Your task to perform on an android device: check battery use Image 0: 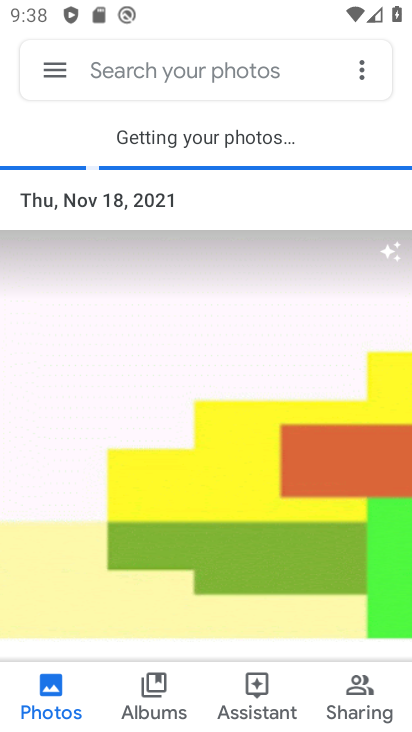
Step 0: press home button
Your task to perform on an android device: check battery use Image 1: 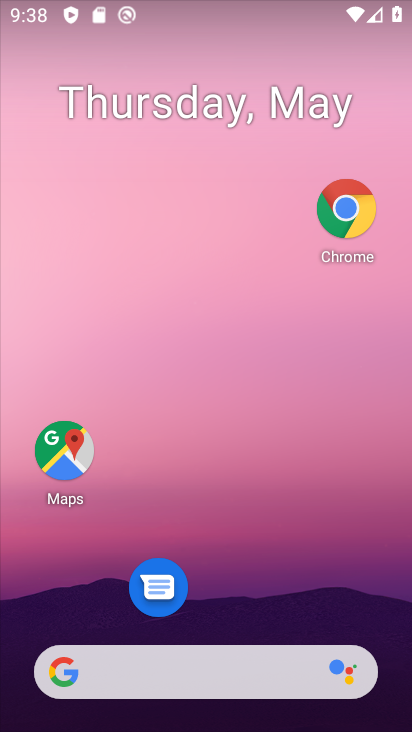
Step 1: drag from (244, 615) to (246, 1)
Your task to perform on an android device: check battery use Image 2: 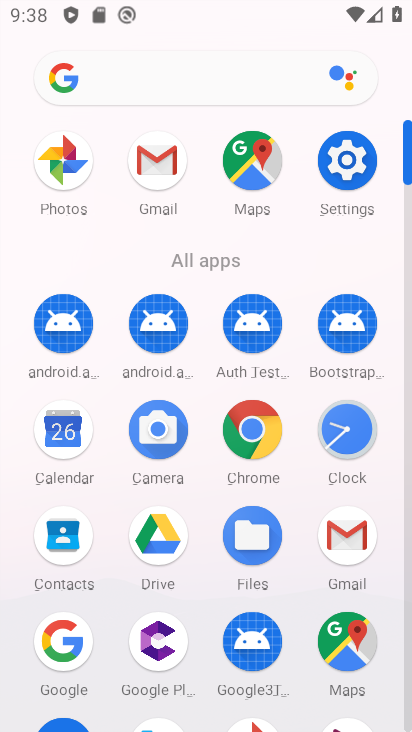
Step 2: click (343, 174)
Your task to perform on an android device: check battery use Image 3: 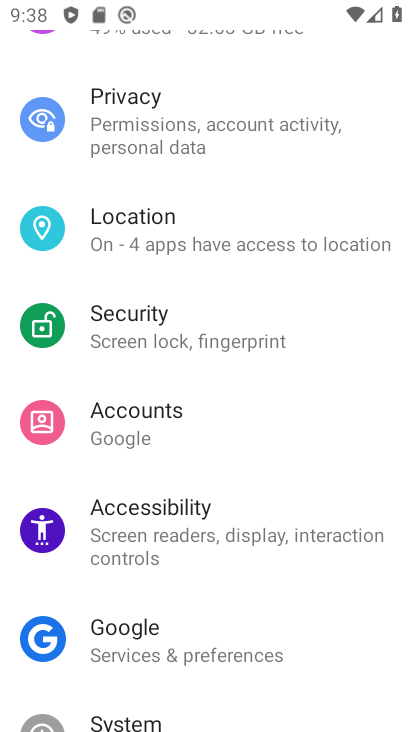
Step 3: drag from (240, 152) to (240, 616)
Your task to perform on an android device: check battery use Image 4: 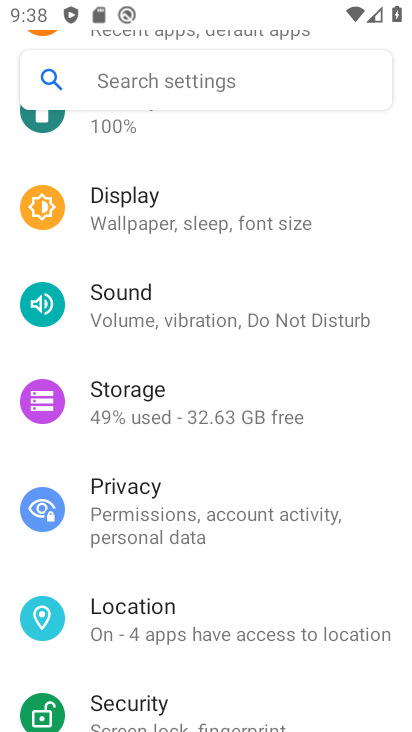
Step 4: drag from (212, 243) to (187, 682)
Your task to perform on an android device: check battery use Image 5: 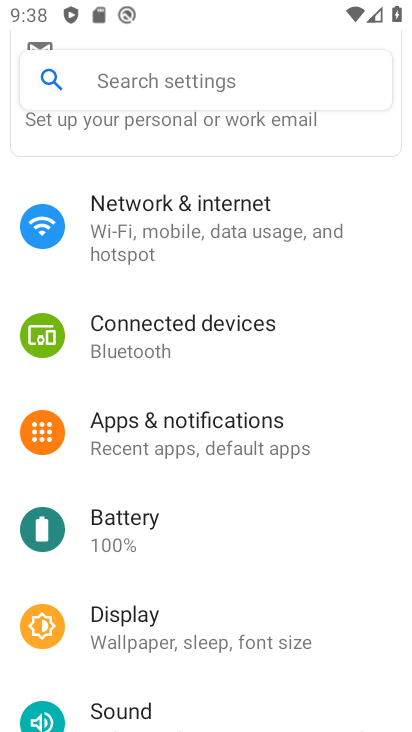
Step 5: click (112, 553)
Your task to perform on an android device: check battery use Image 6: 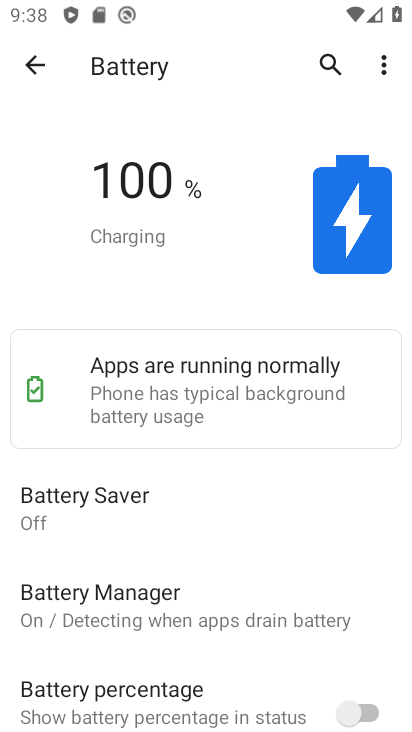
Step 6: task complete